Your task to perform on an android device: delete location history Image 0: 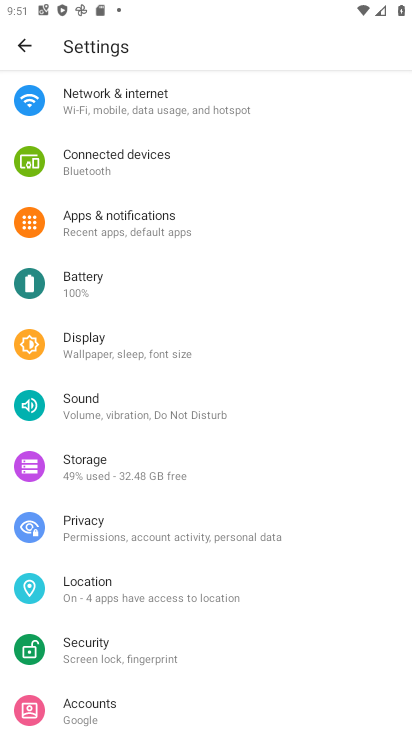
Step 0: press home button
Your task to perform on an android device: delete location history Image 1: 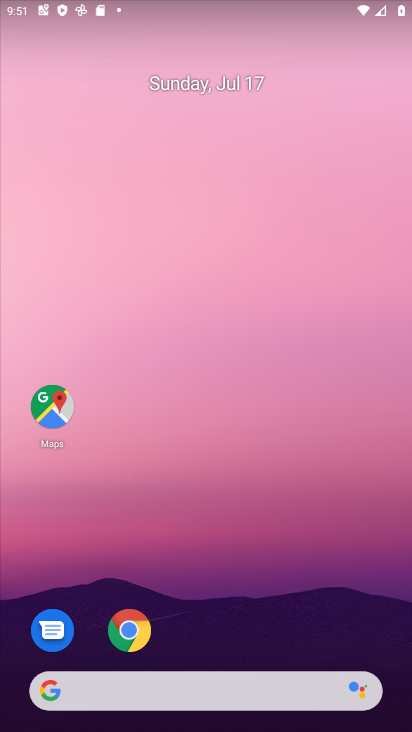
Step 1: drag from (250, 638) to (250, 335)
Your task to perform on an android device: delete location history Image 2: 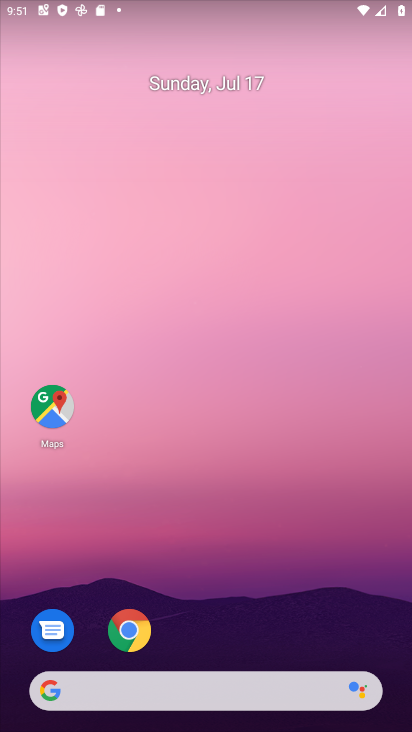
Step 2: drag from (177, 624) to (198, 139)
Your task to perform on an android device: delete location history Image 3: 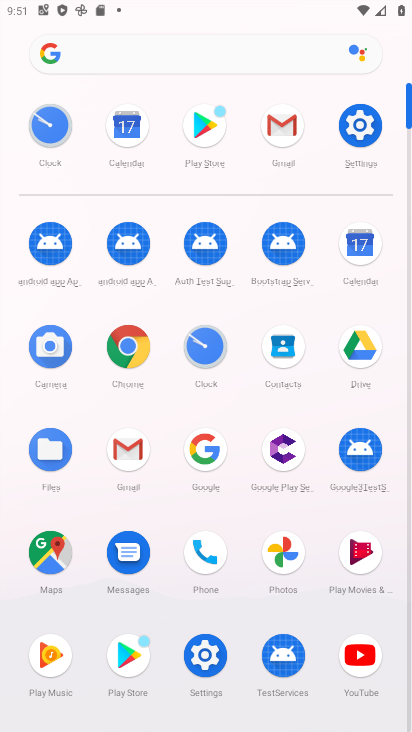
Step 3: click (350, 138)
Your task to perform on an android device: delete location history Image 4: 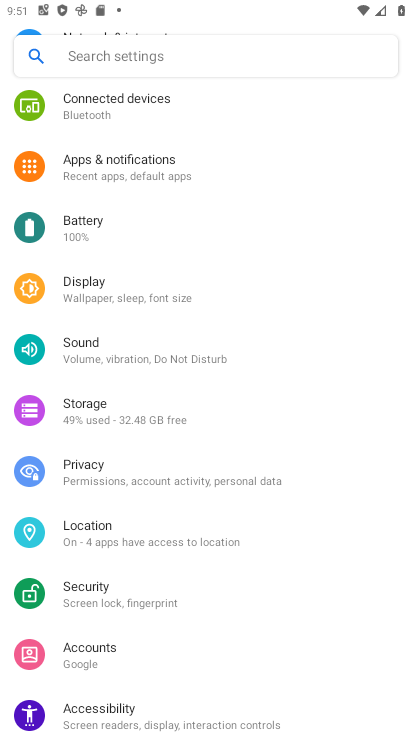
Step 4: click (124, 546)
Your task to perform on an android device: delete location history Image 5: 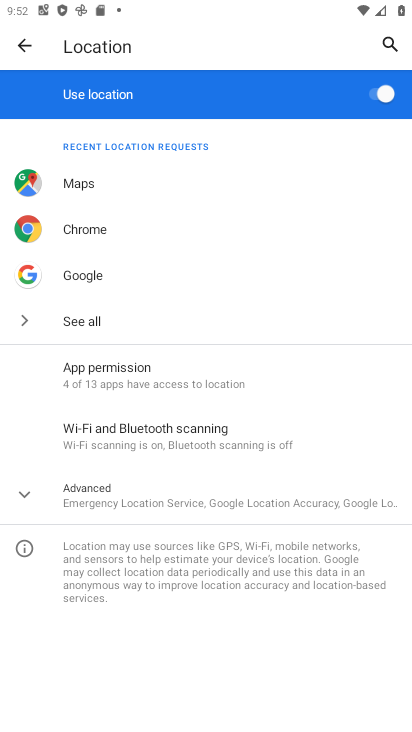
Step 5: click (115, 492)
Your task to perform on an android device: delete location history Image 6: 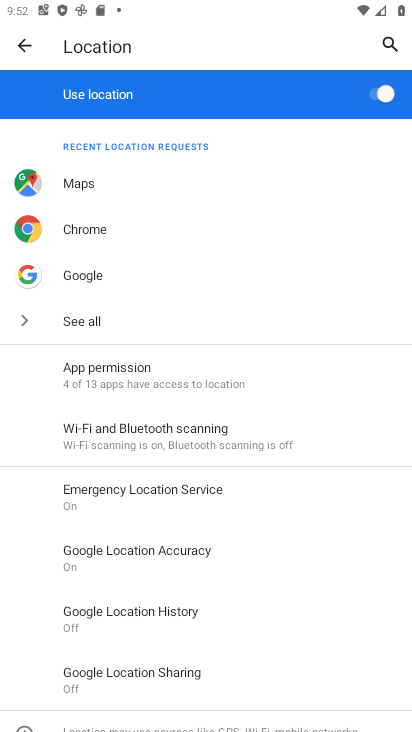
Step 6: click (115, 610)
Your task to perform on an android device: delete location history Image 7: 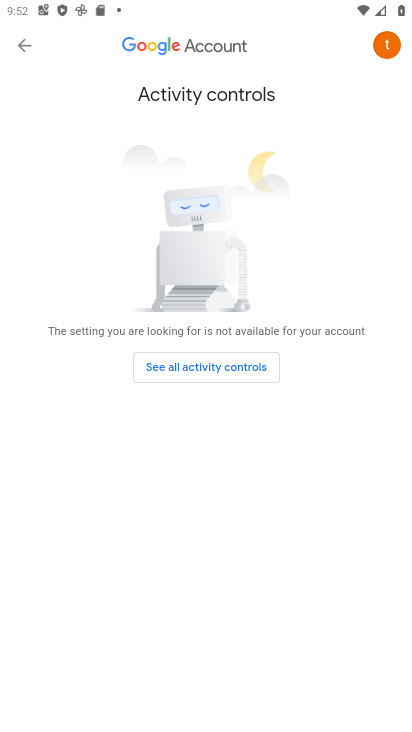
Step 7: task complete